Your task to perform on an android device: Add jbl flip 4 to the cart on bestbuy, then select checkout. Image 0: 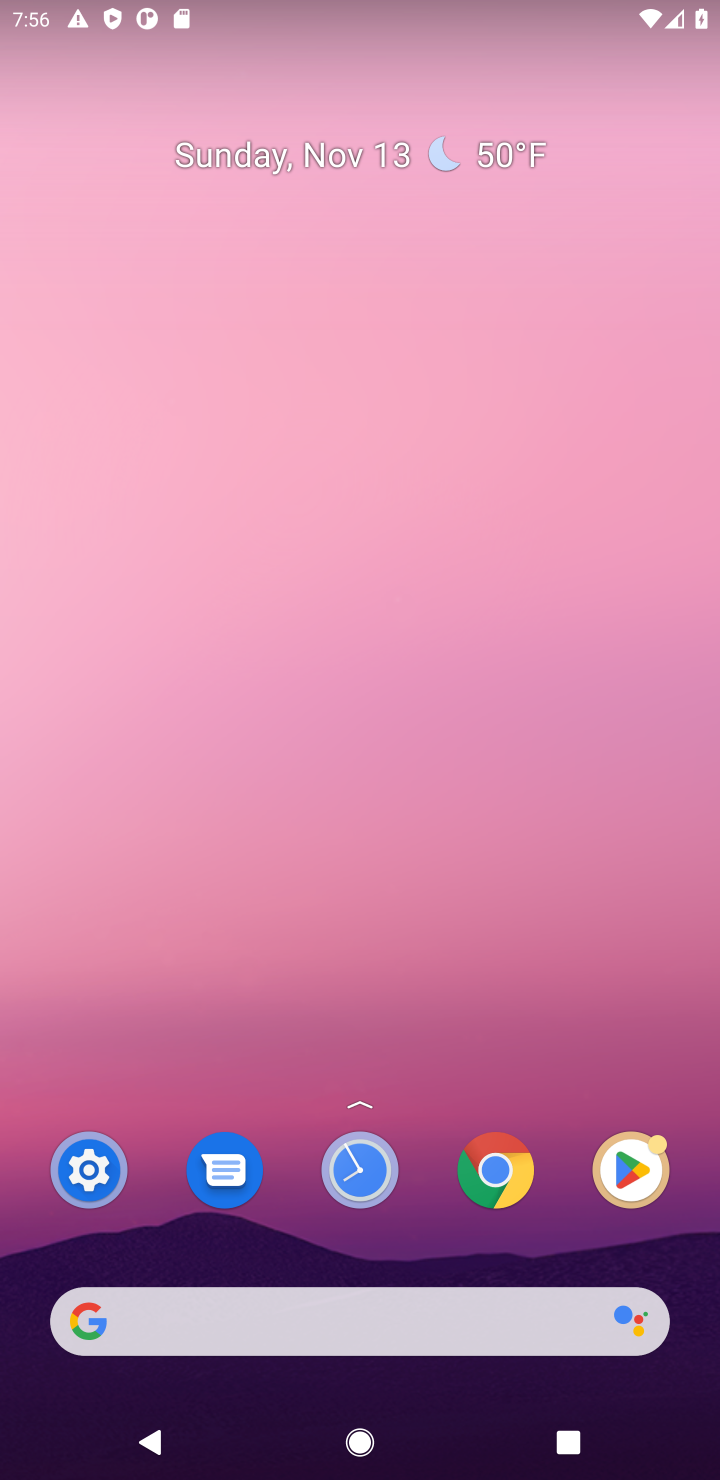
Step 0: click (287, 1318)
Your task to perform on an android device: Add jbl flip 4 to the cart on bestbuy, then select checkout. Image 1: 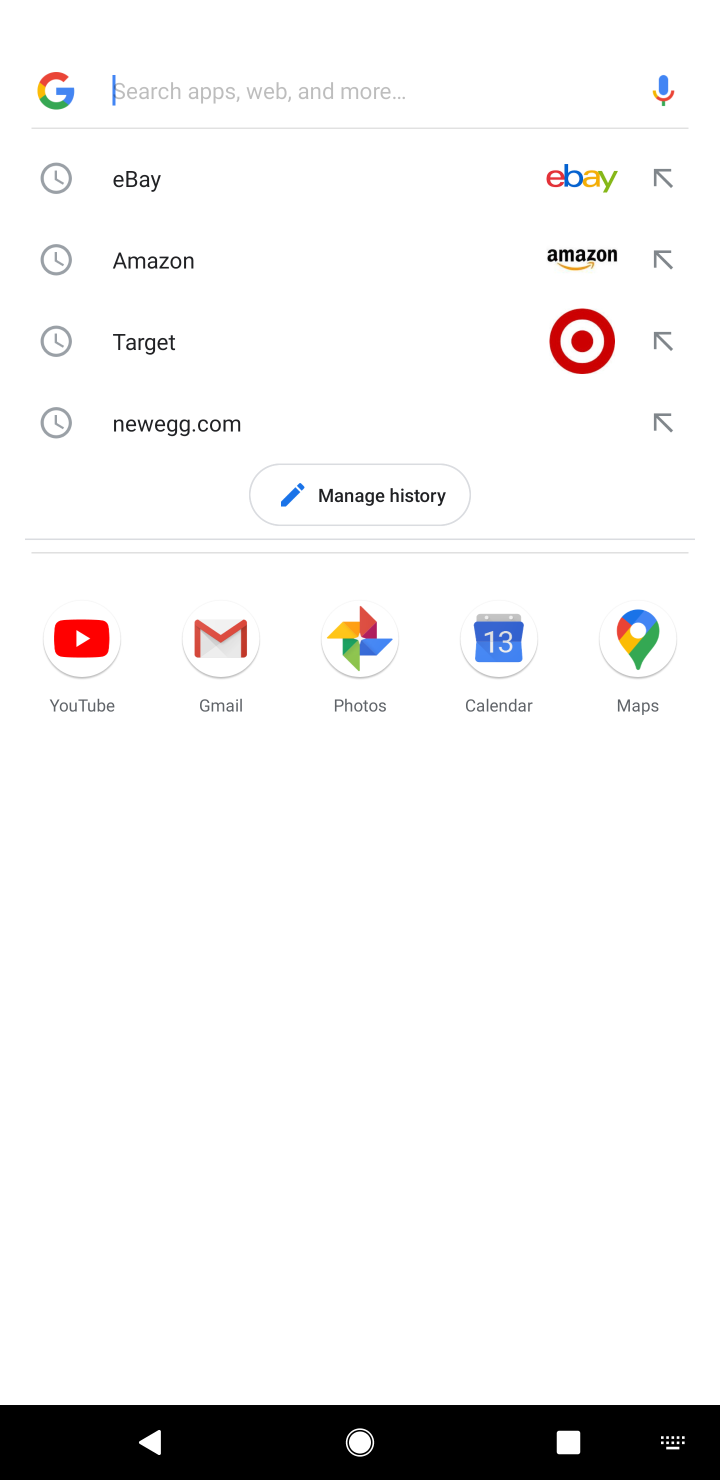
Step 1: type "bestbuy"
Your task to perform on an android device: Add jbl flip 4 to the cart on bestbuy, then select checkout. Image 2: 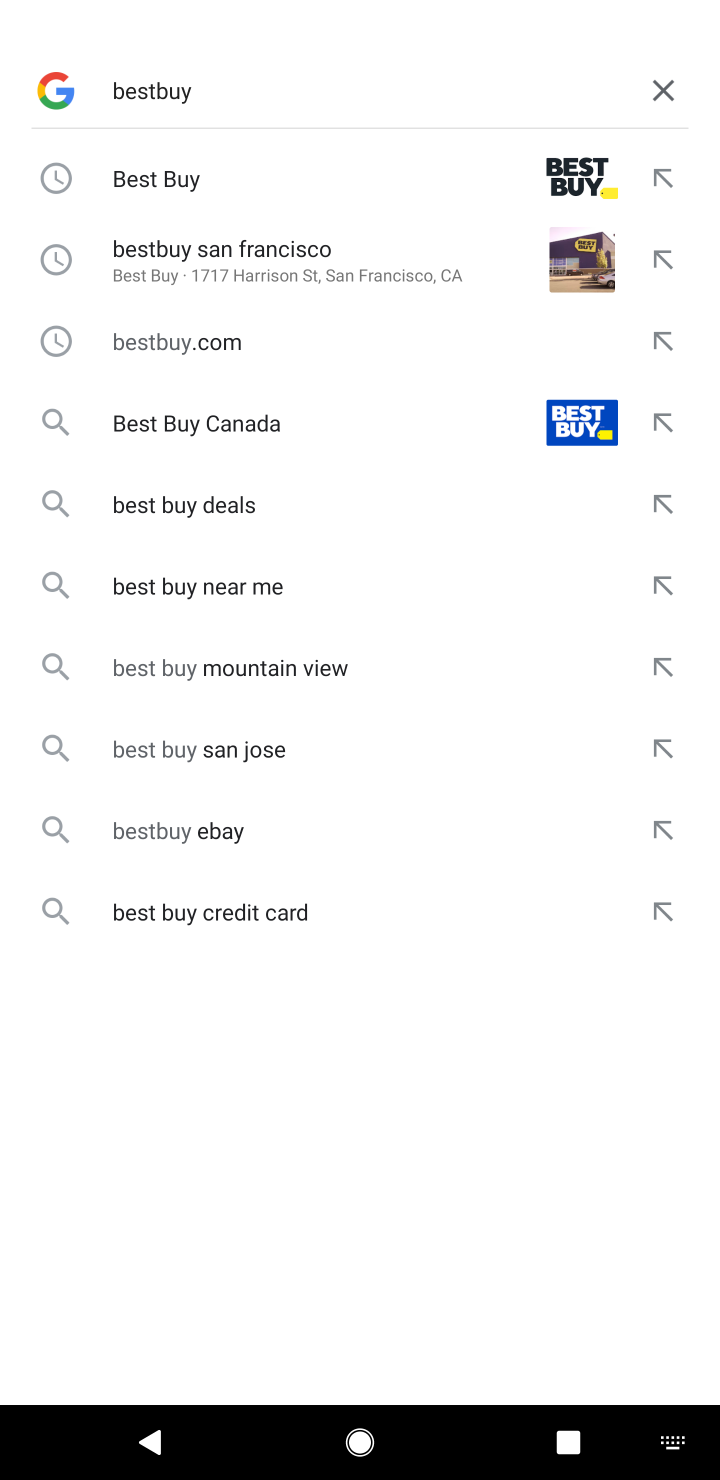
Step 2: click (154, 219)
Your task to perform on an android device: Add jbl flip 4 to the cart on bestbuy, then select checkout. Image 3: 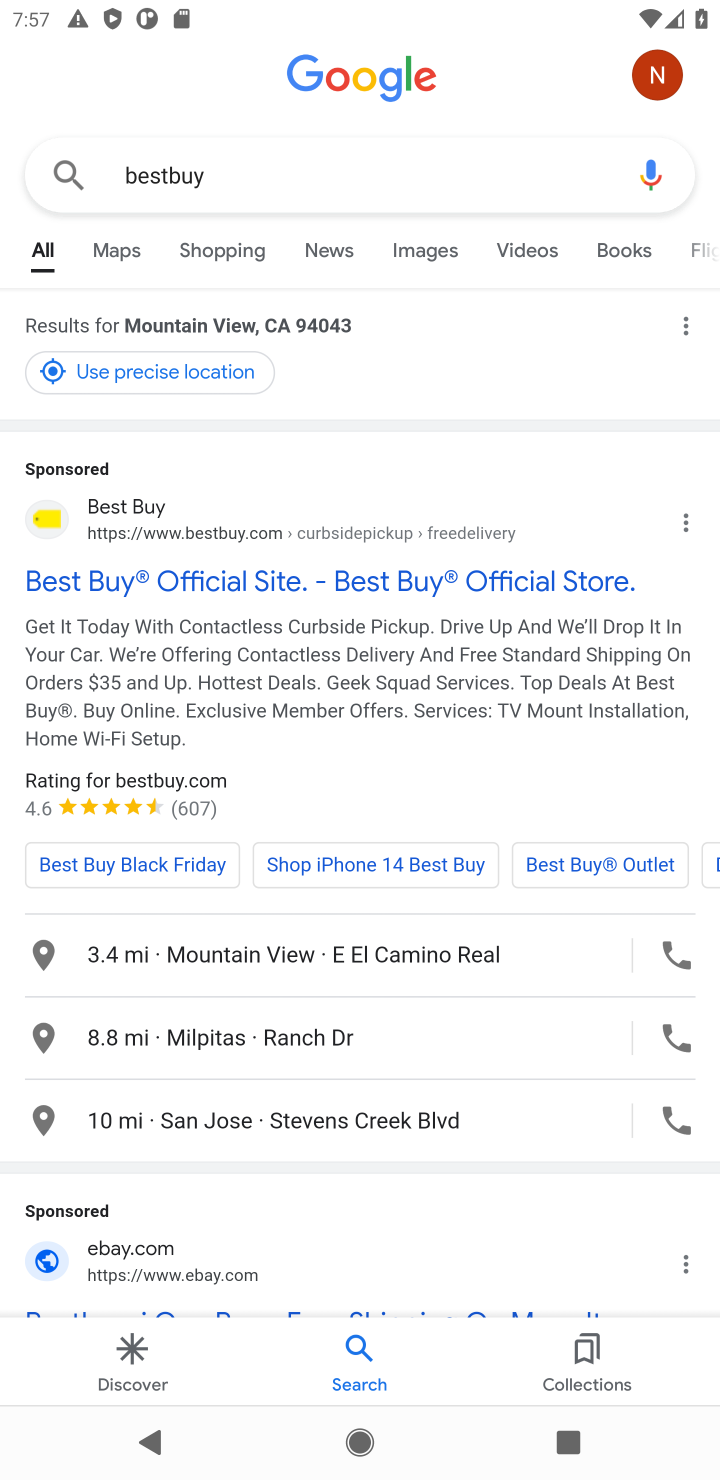
Step 3: click (157, 564)
Your task to perform on an android device: Add jbl flip 4 to the cart on bestbuy, then select checkout. Image 4: 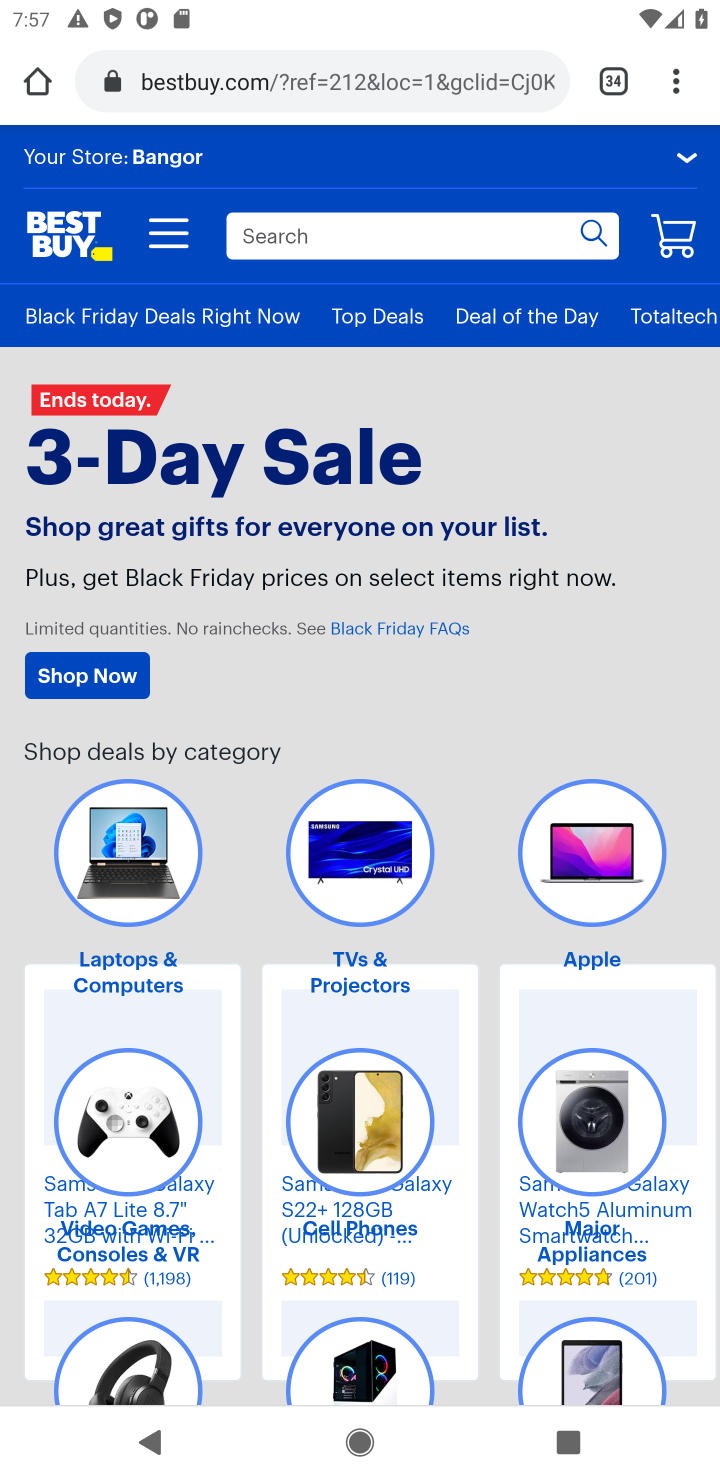
Step 4: task complete